Your task to perform on an android device: turn on airplane mode Image 0: 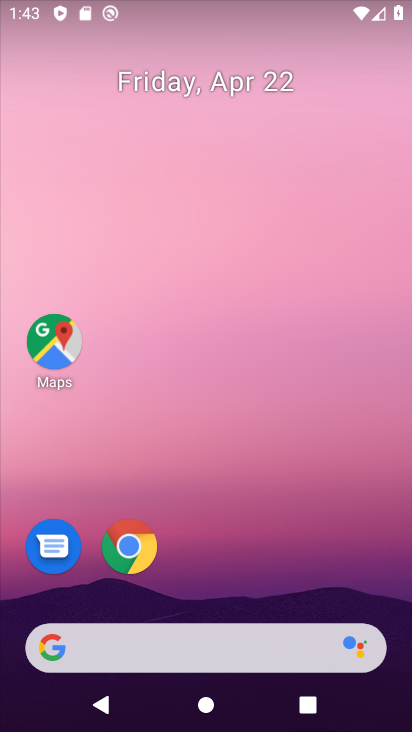
Step 0: drag from (268, 459) to (265, 23)
Your task to perform on an android device: turn on airplane mode Image 1: 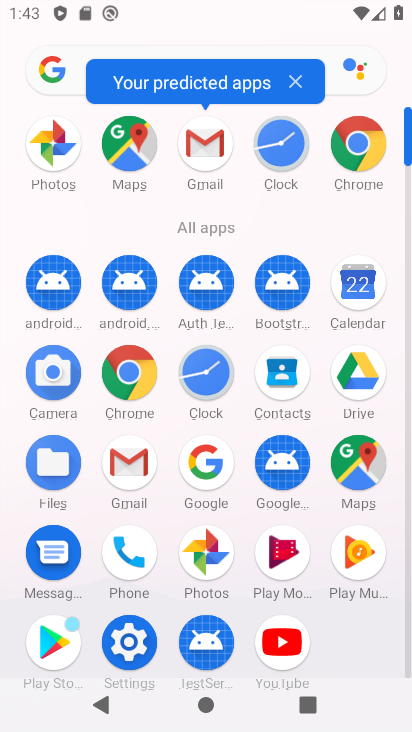
Step 1: click (136, 648)
Your task to perform on an android device: turn on airplane mode Image 2: 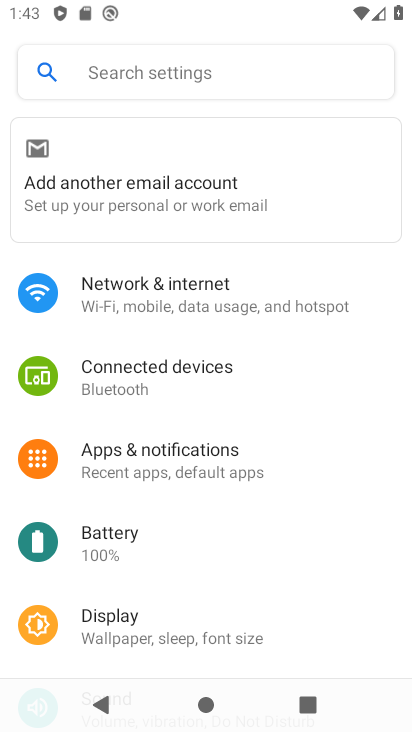
Step 2: click (206, 294)
Your task to perform on an android device: turn on airplane mode Image 3: 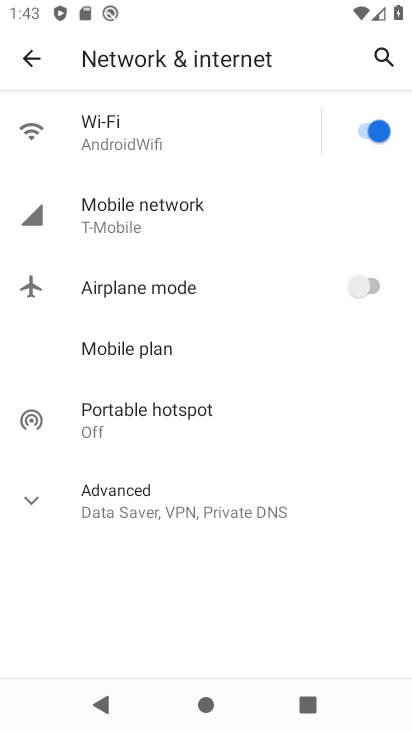
Step 3: click (351, 283)
Your task to perform on an android device: turn on airplane mode Image 4: 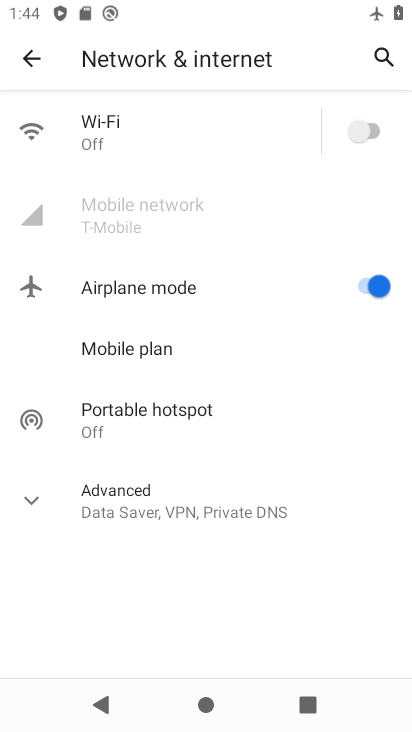
Step 4: task complete